Your task to perform on an android device: Empty the shopping cart on walmart. Search for "usb-c to usb-a" on walmart, select the first entry, add it to the cart, then select checkout. Image 0: 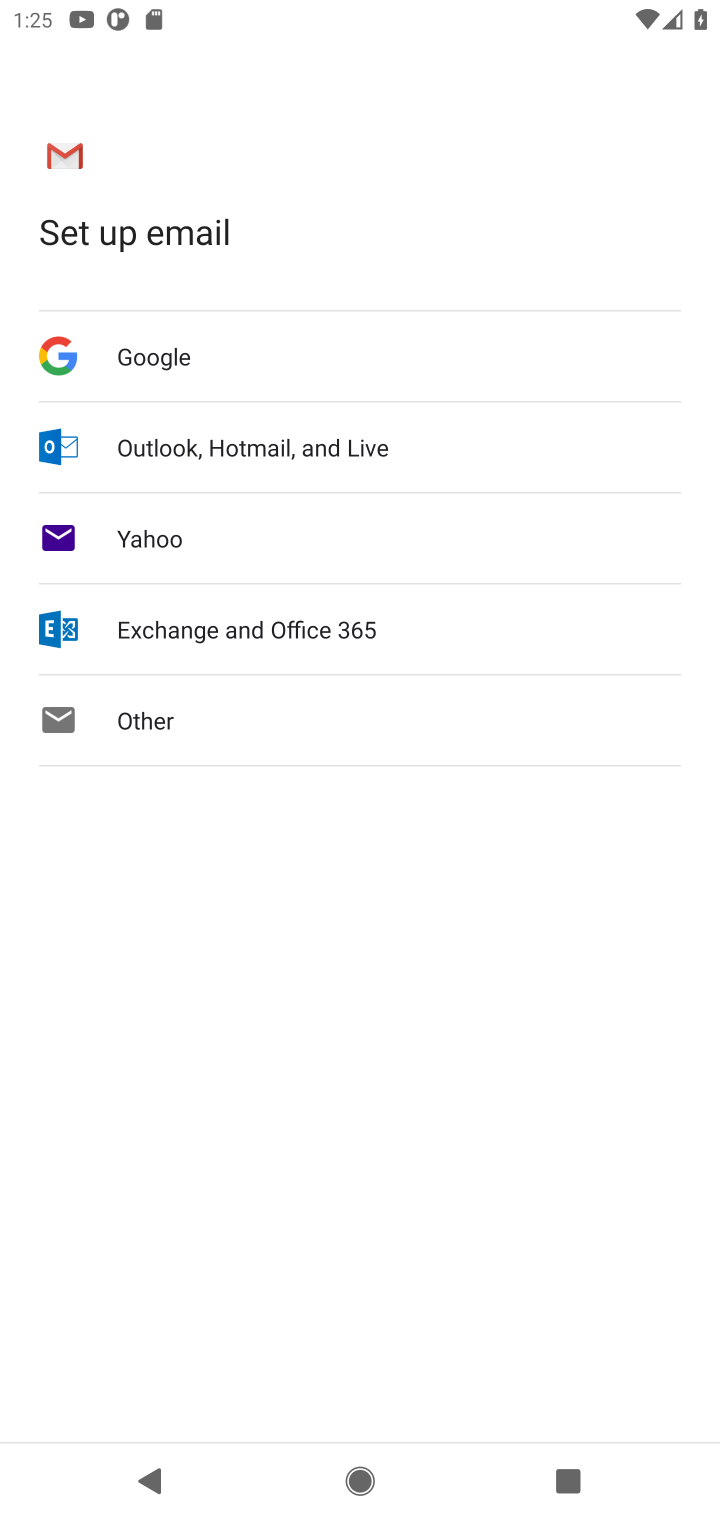
Step 0: press home button
Your task to perform on an android device: Empty the shopping cart on walmart. Search for "usb-c to usb-a" on walmart, select the first entry, add it to the cart, then select checkout. Image 1: 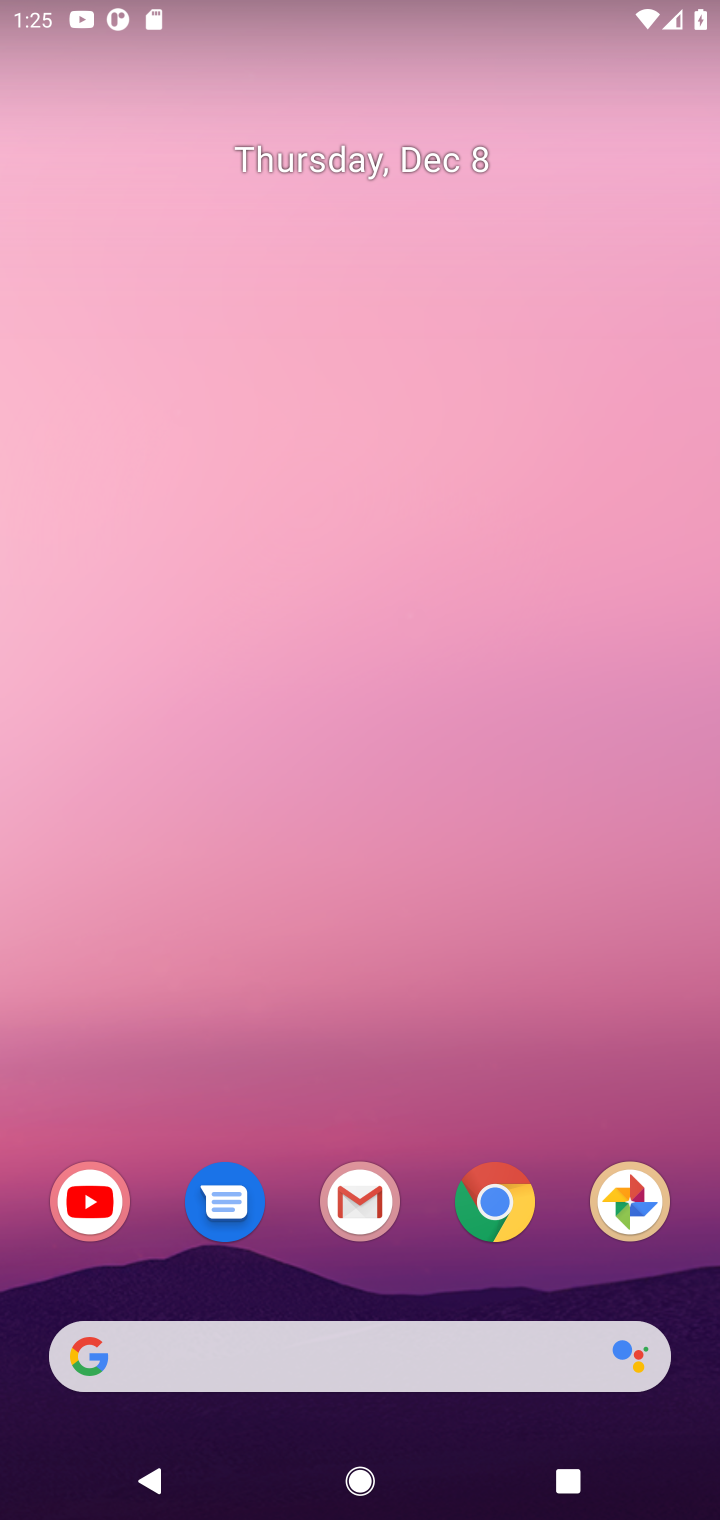
Step 1: click (515, 1207)
Your task to perform on an android device: Empty the shopping cart on walmart. Search for "usb-c to usb-a" on walmart, select the first entry, add it to the cart, then select checkout. Image 2: 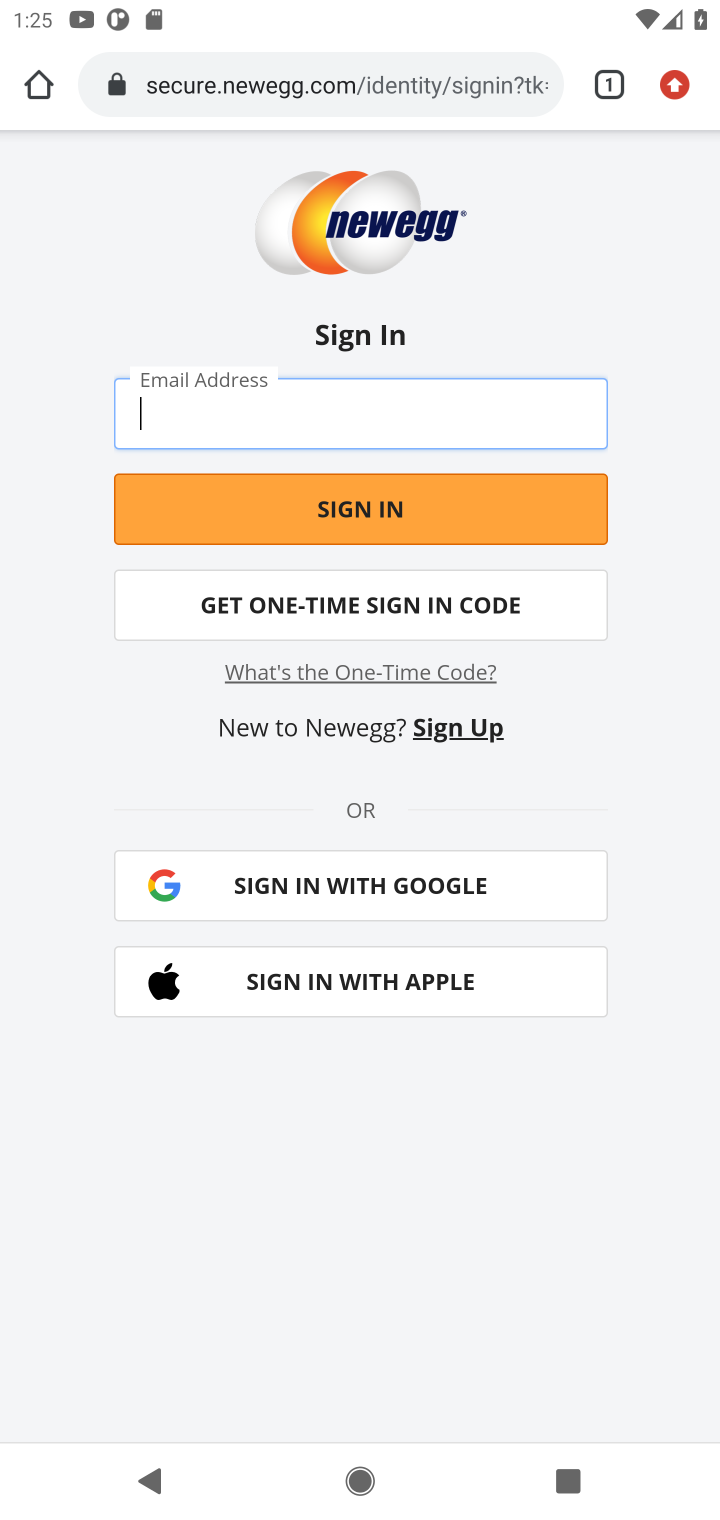
Step 2: click (259, 96)
Your task to perform on an android device: Empty the shopping cart on walmart. Search for "usb-c to usb-a" on walmart, select the first entry, add it to the cart, then select checkout. Image 3: 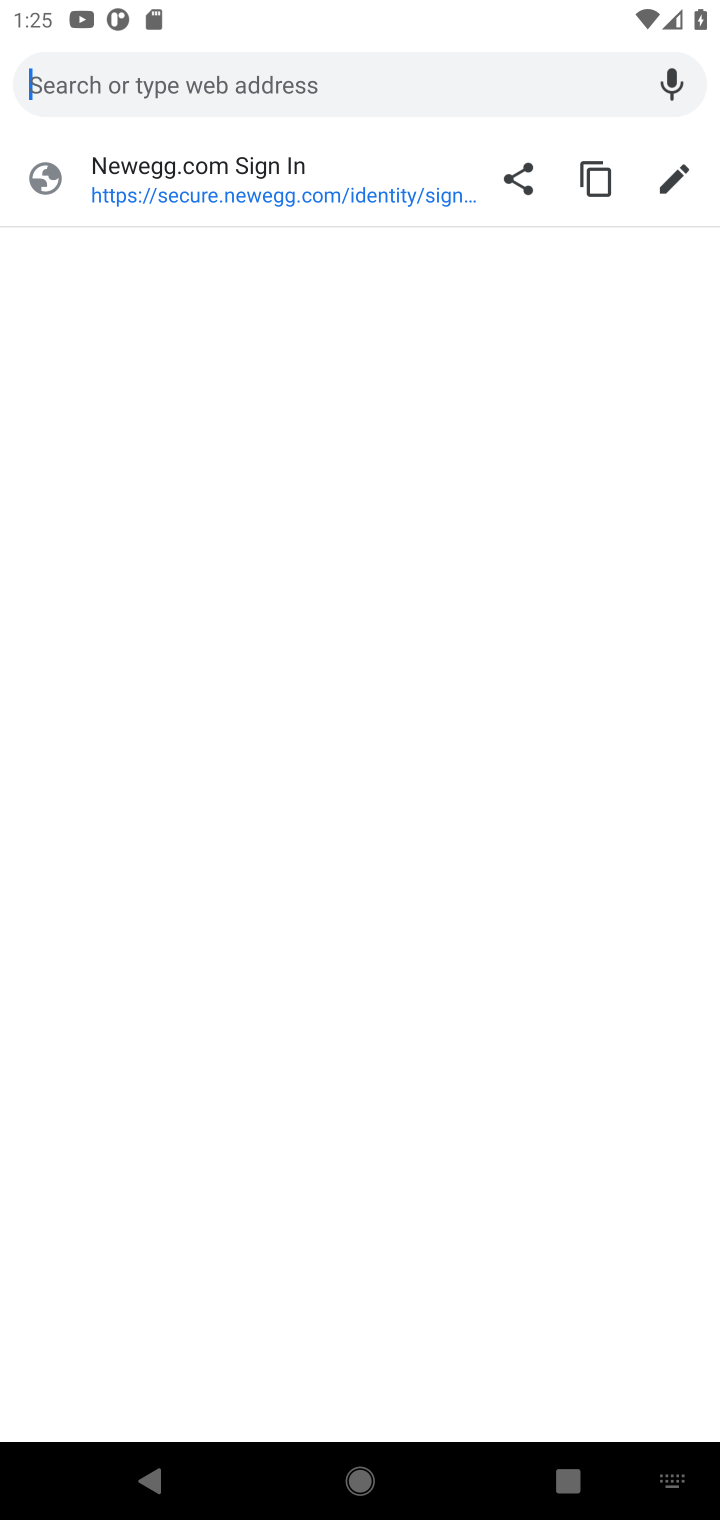
Step 3: type "walmart"
Your task to perform on an android device: Empty the shopping cart on walmart. Search for "usb-c to usb-a" on walmart, select the first entry, add it to the cart, then select checkout. Image 4: 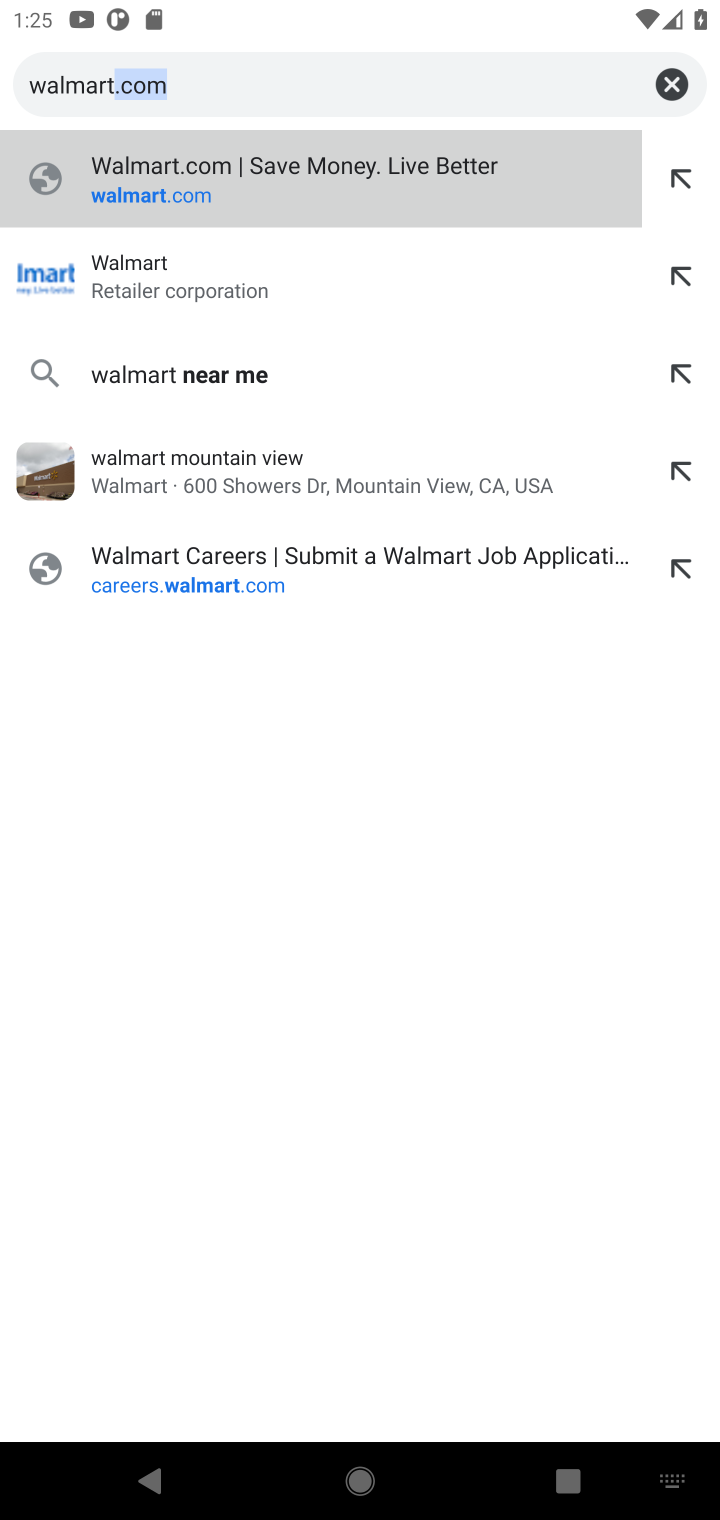
Step 4: press enter
Your task to perform on an android device: Empty the shopping cart on walmart. Search for "usb-c to usb-a" on walmart, select the first entry, add it to the cart, then select checkout. Image 5: 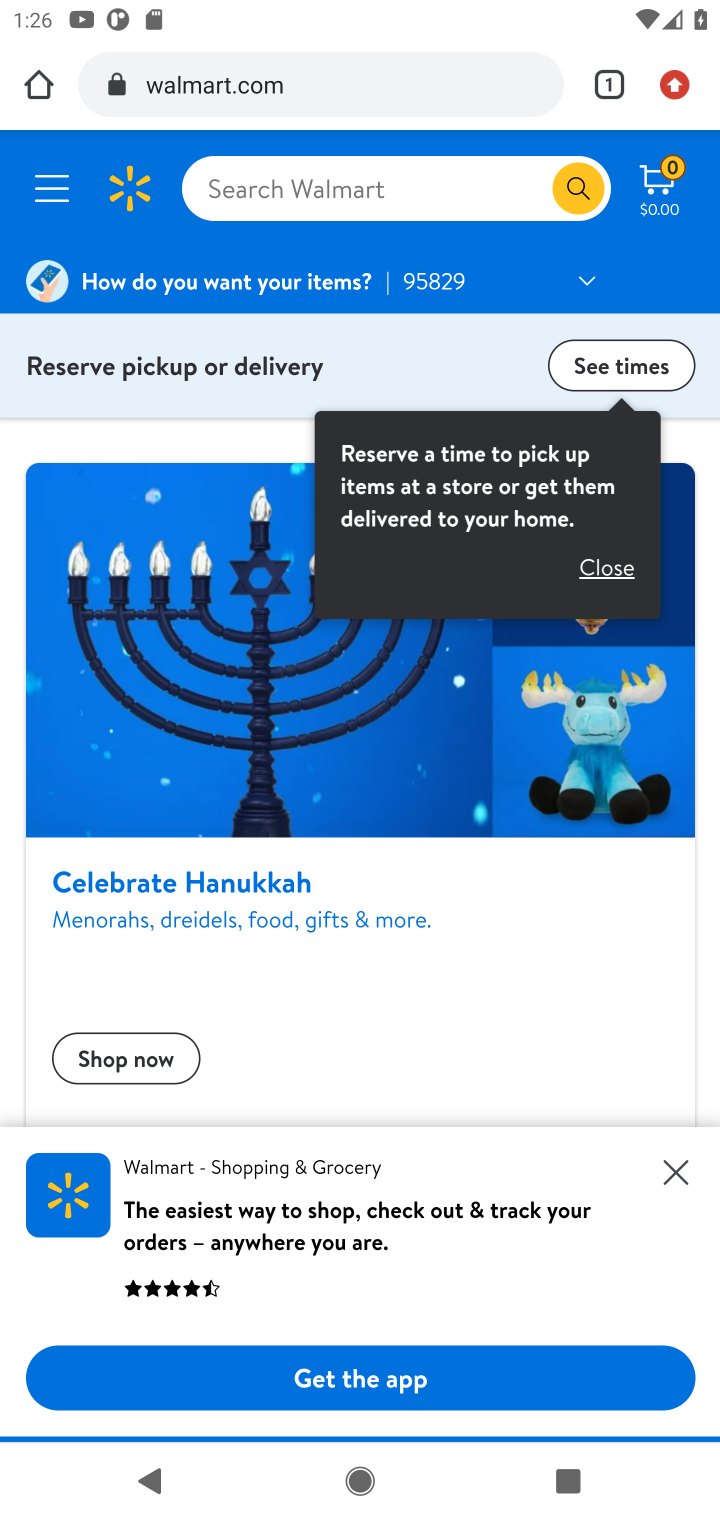
Step 5: click (663, 208)
Your task to perform on an android device: Empty the shopping cart on walmart. Search for "usb-c to usb-a" on walmart, select the first entry, add it to the cart, then select checkout. Image 6: 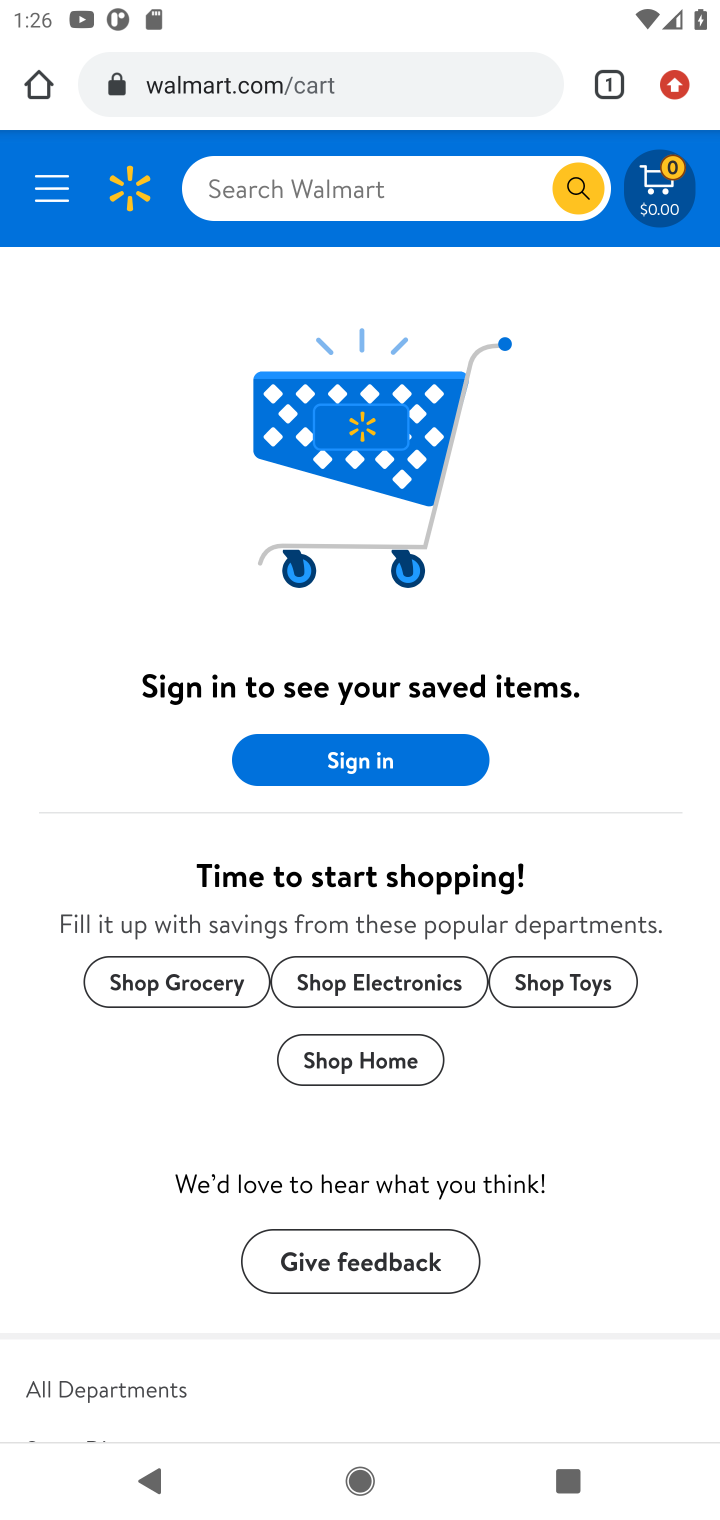
Step 6: click (385, 217)
Your task to perform on an android device: Empty the shopping cart on walmart. Search for "usb-c to usb-a" on walmart, select the first entry, add it to the cart, then select checkout. Image 7: 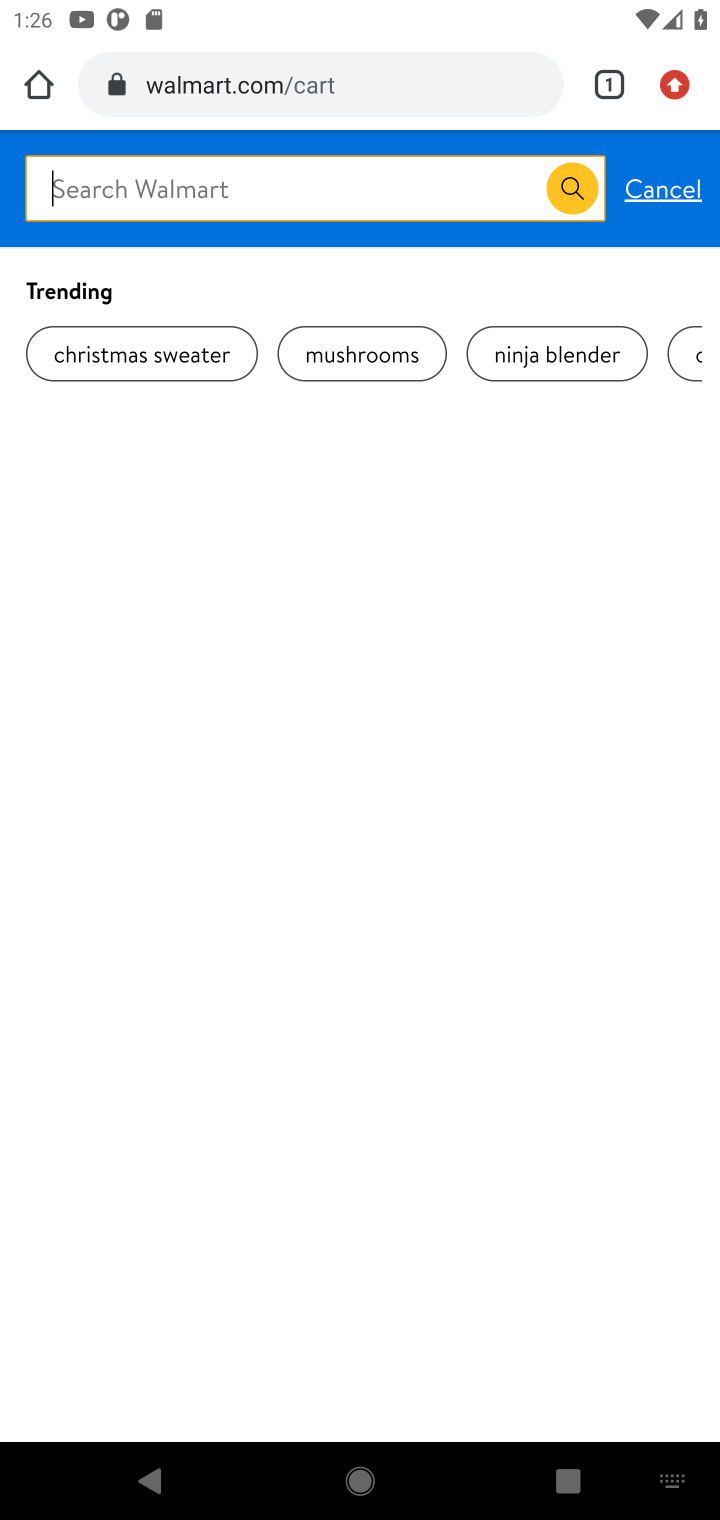
Step 7: type "usb-c to usb-a"
Your task to perform on an android device: Empty the shopping cart on walmart. Search for "usb-c to usb-a" on walmart, select the first entry, add it to the cart, then select checkout. Image 8: 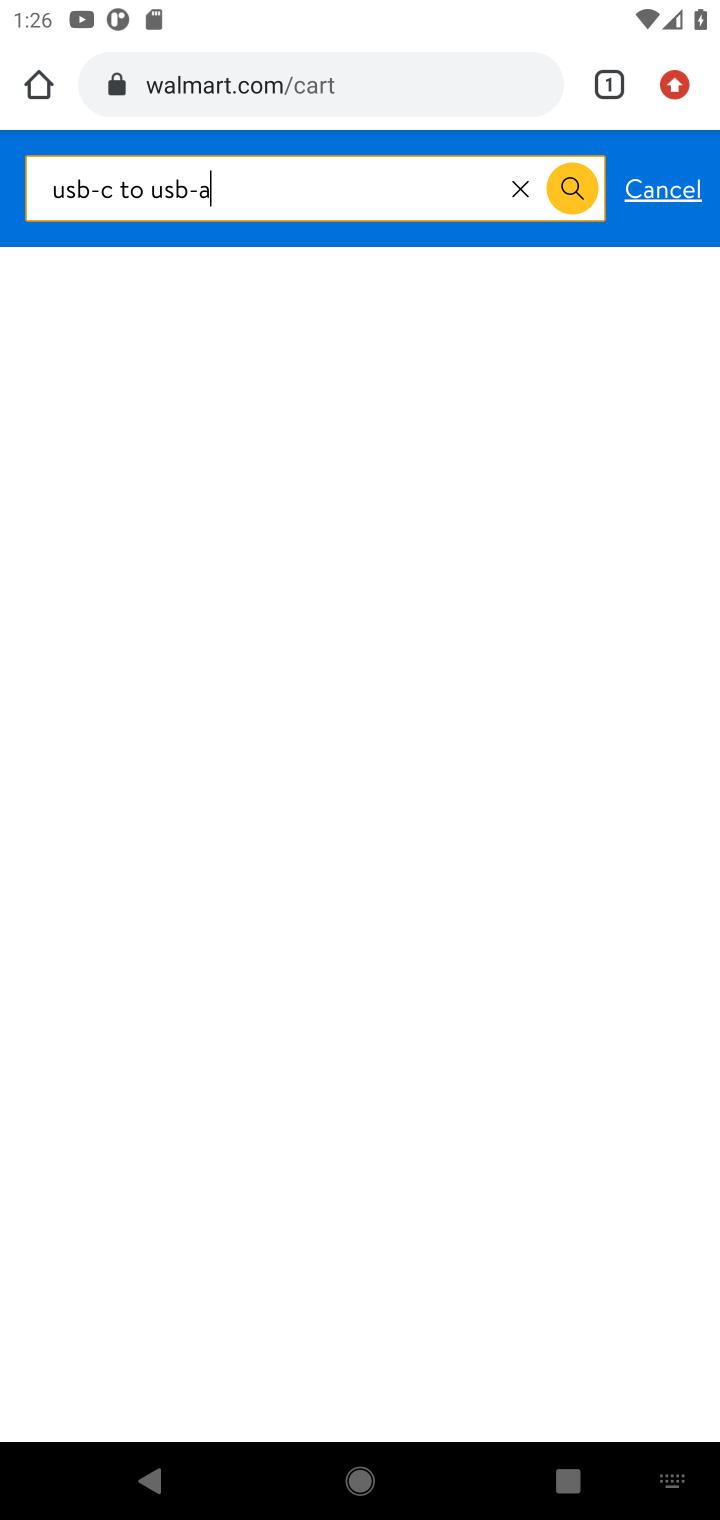
Step 8: press enter
Your task to perform on an android device: Empty the shopping cart on walmart. Search for "usb-c to usb-a" on walmart, select the first entry, add it to the cart, then select checkout. Image 9: 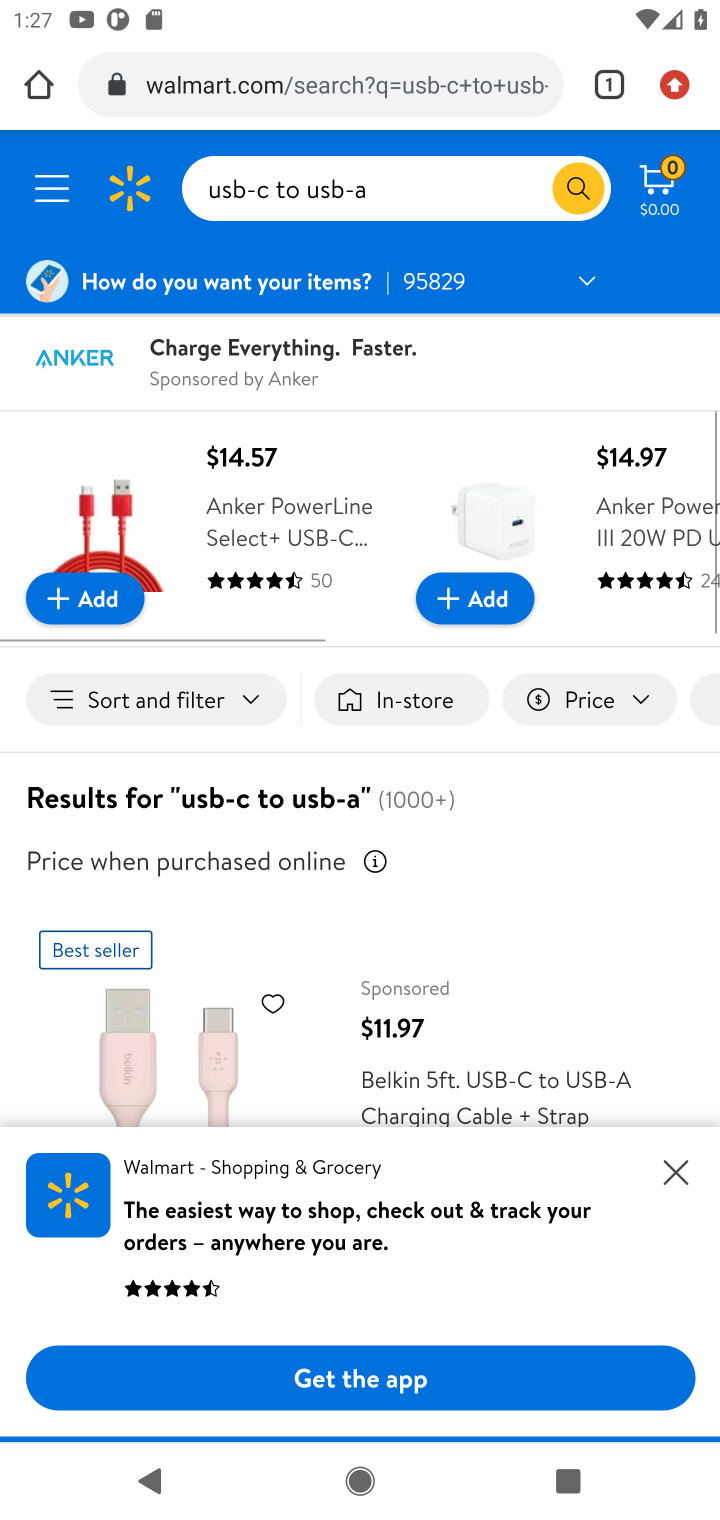
Step 9: click (671, 1176)
Your task to perform on an android device: Empty the shopping cart on walmart. Search for "usb-c to usb-a" on walmart, select the first entry, add it to the cart, then select checkout. Image 10: 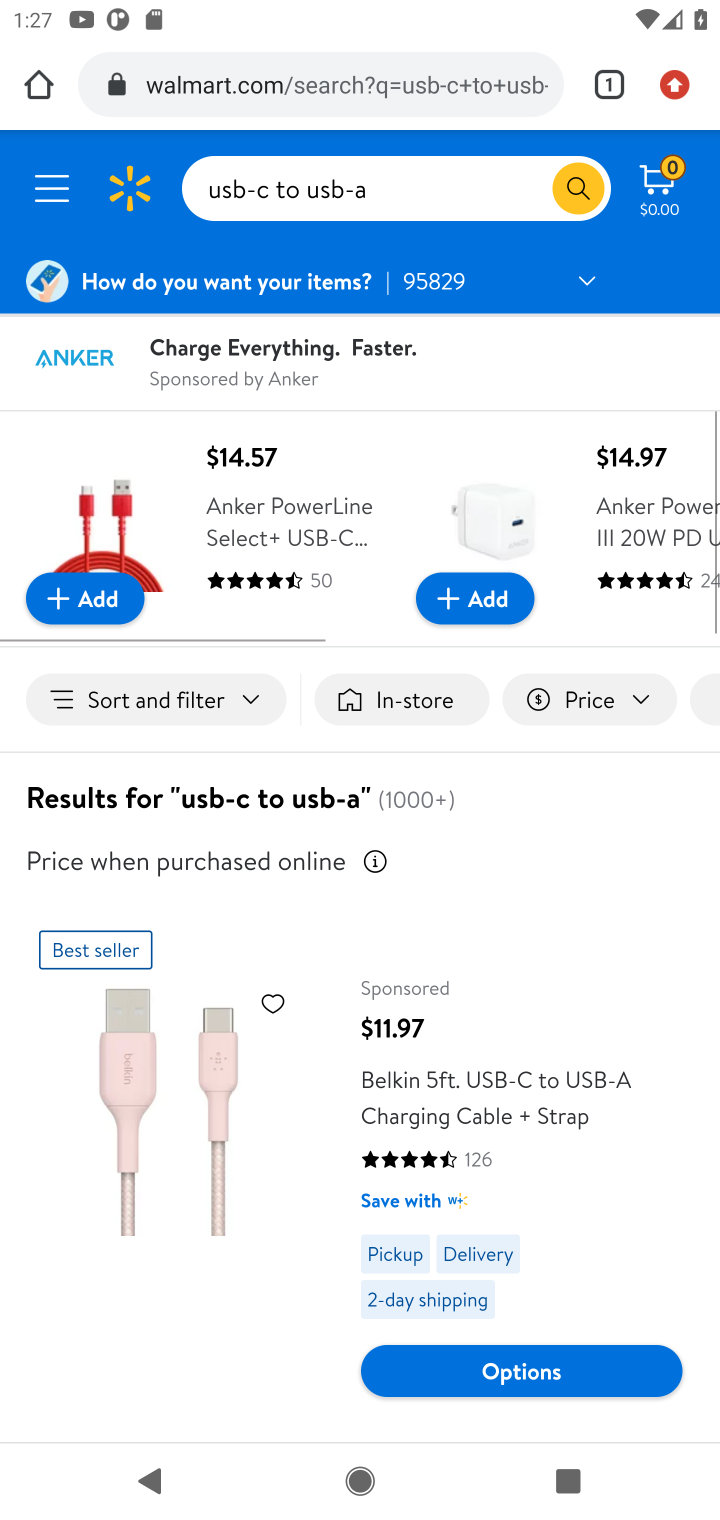
Step 10: click (549, 1377)
Your task to perform on an android device: Empty the shopping cart on walmart. Search for "usb-c to usb-a" on walmart, select the first entry, add it to the cart, then select checkout. Image 11: 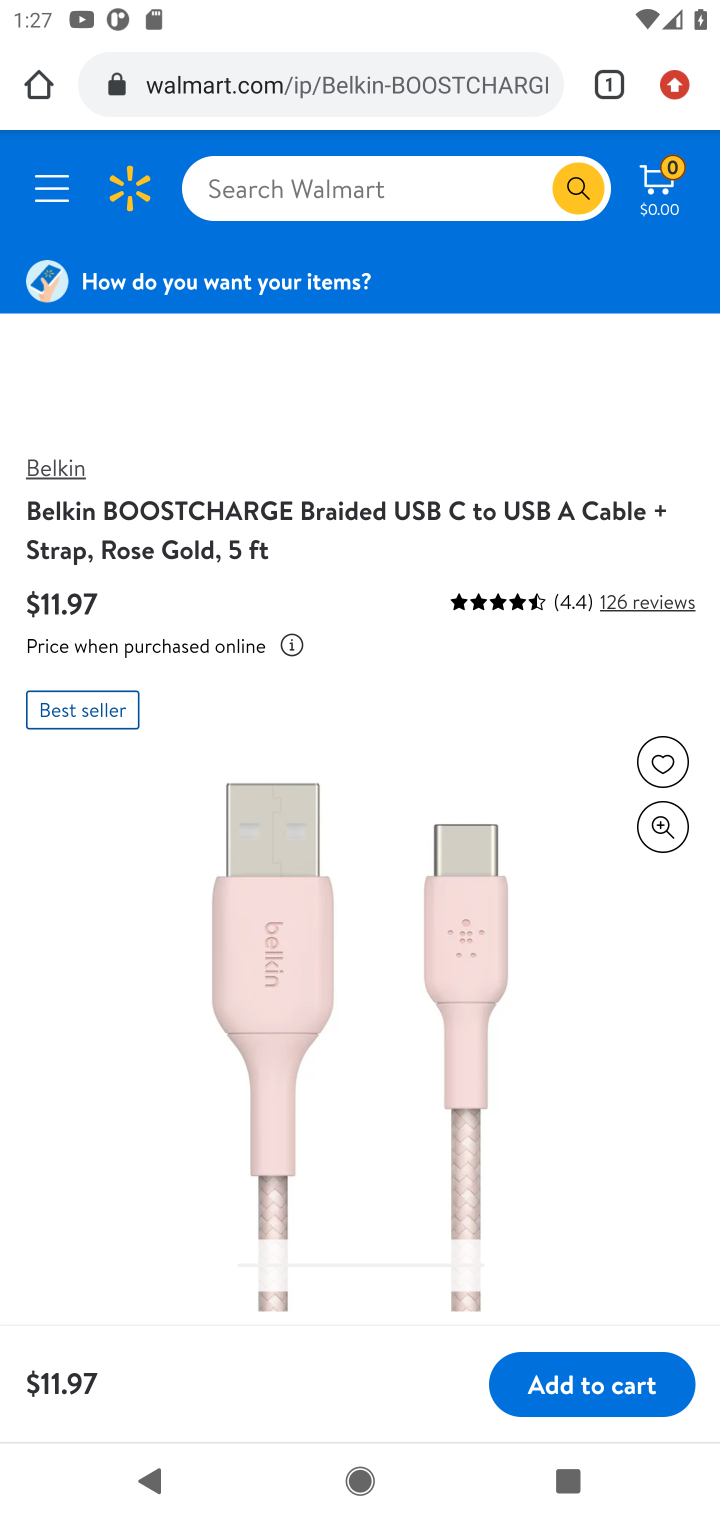
Step 11: click (568, 1391)
Your task to perform on an android device: Empty the shopping cart on walmart. Search for "usb-c to usb-a" on walmart, select the first entry, add it to the cart, then select checkout. Image 12: 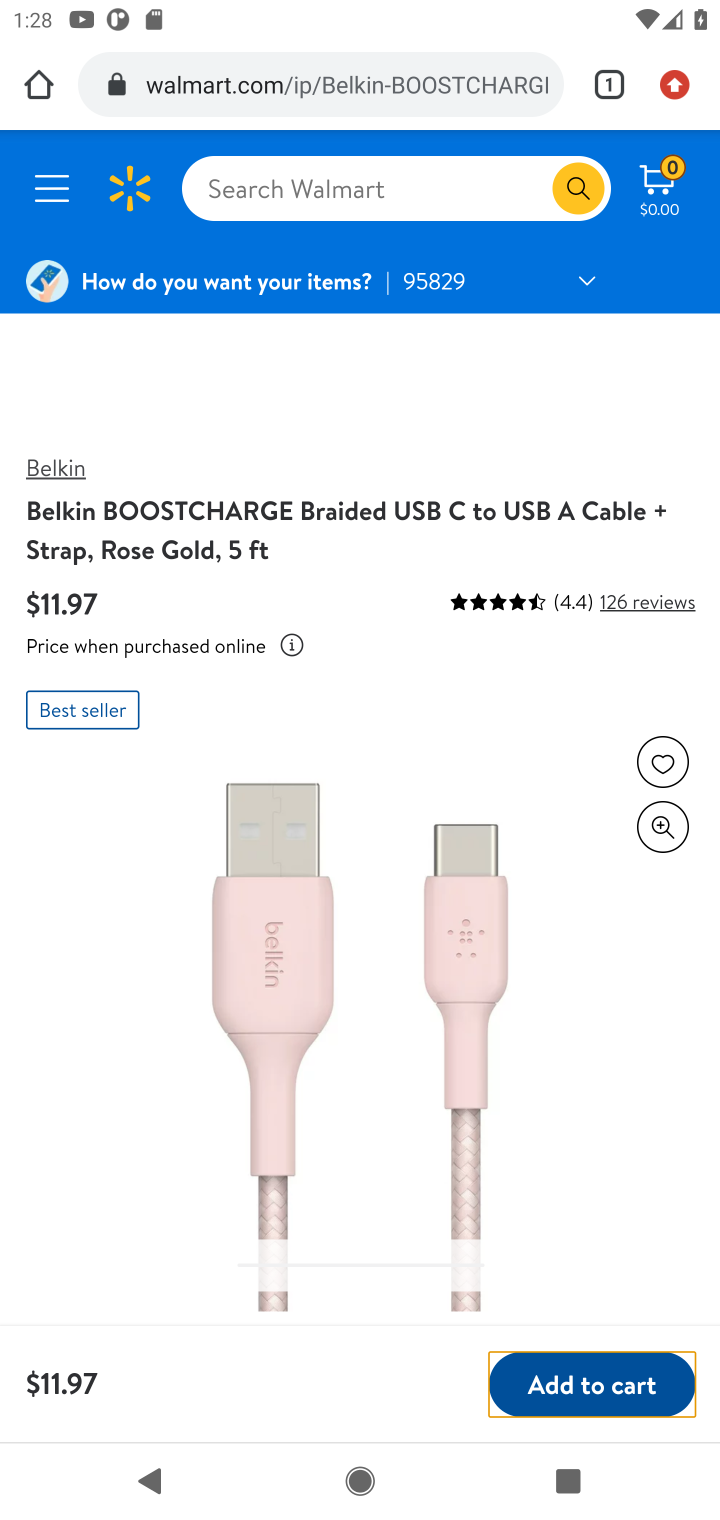
Step 12: click (576, 1384)
Your task to perform on an android device: Empty the shopping cart on walmart. Search for "usb-c to usb-a" on walmart, select the first entry, add it to the cart, then select checkout. Image 13: 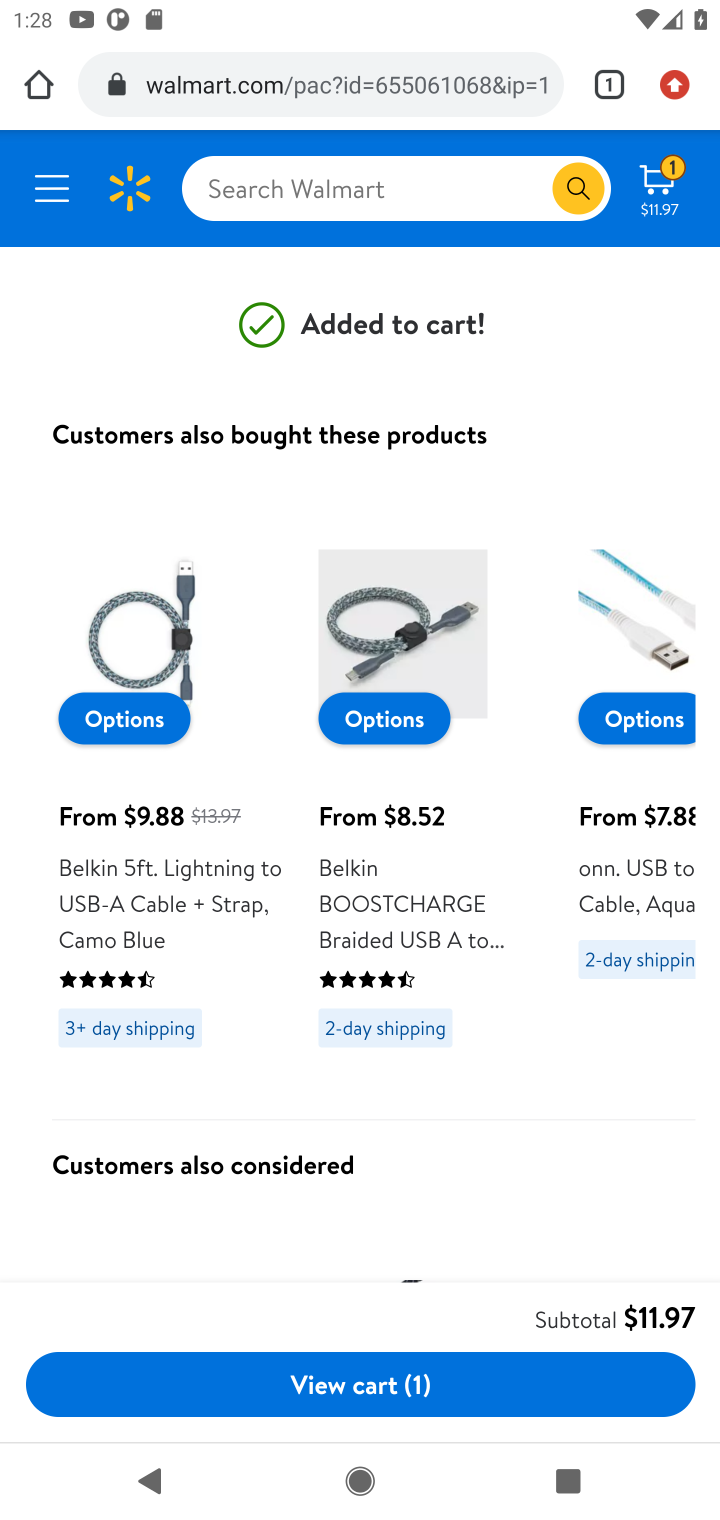
Step 13: click (378, 1387)
Your task to perform on an android device: Empty the shopping cart on walmart. Search for "usb-c to usb-a" on walmart, select the first entry, add it to the cart, then select checkout. Image 14: 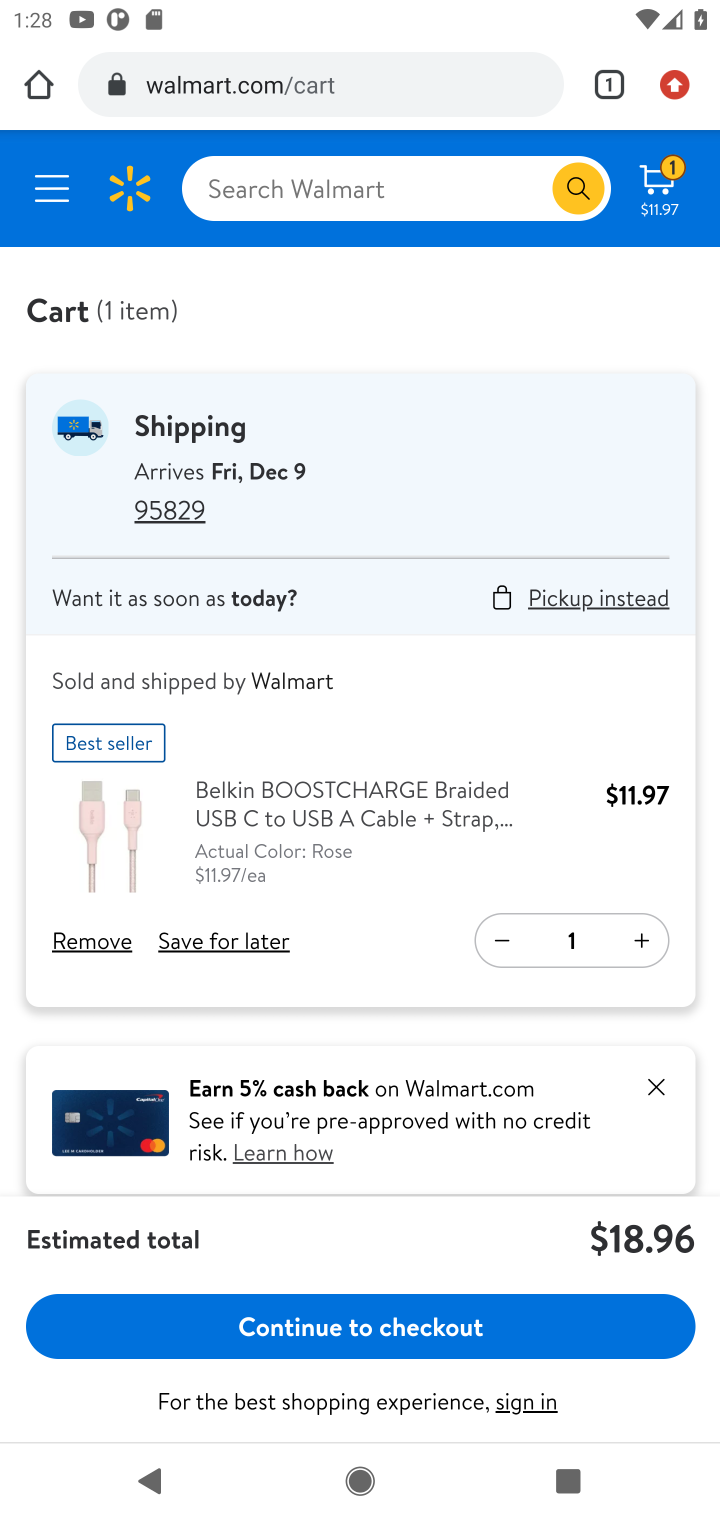
Step 14: click (402, 1345)
Your task to perform on an android device: Empty the shopping cart on walmart. Search for "usb-c to usb-a" on walmart, select the first entry, add it to the cart, then select checkout. Image 15: 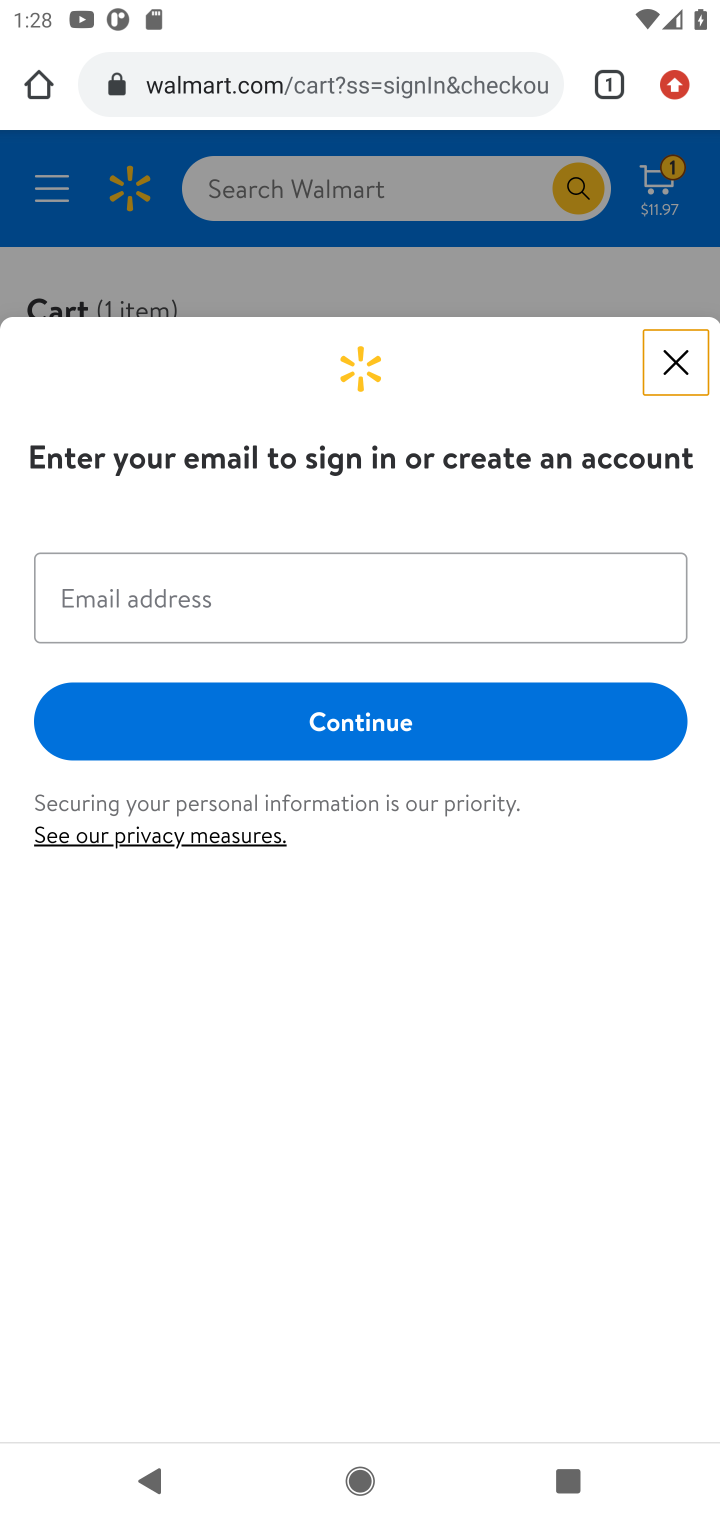
Step 15: task complete